Your task to perform on an android device: open a bookmark in the chrome app Image 0: 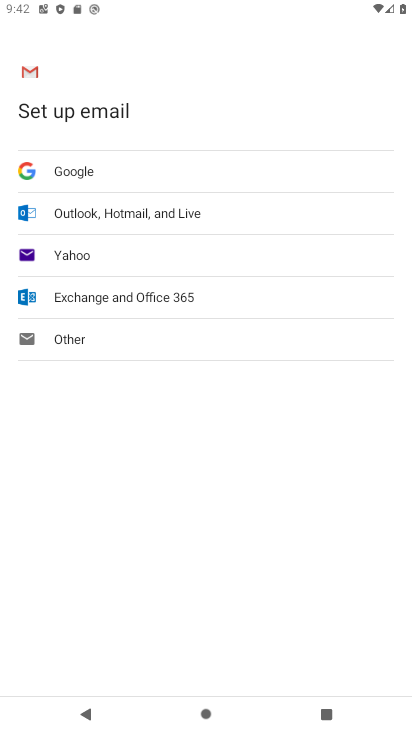
Step 0: press home button
Your task to perform on an android device: open a bookmark in the chrome app Image 1: 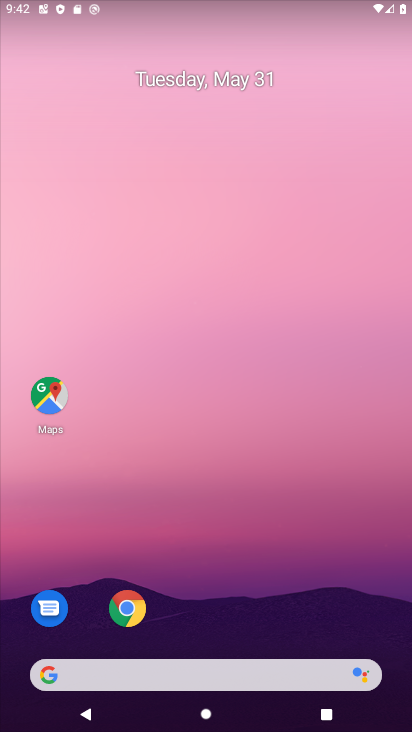
Step 1: click (139, 590)
Your task to perform on an android device: open a bookmark in the chrome app Image 2: 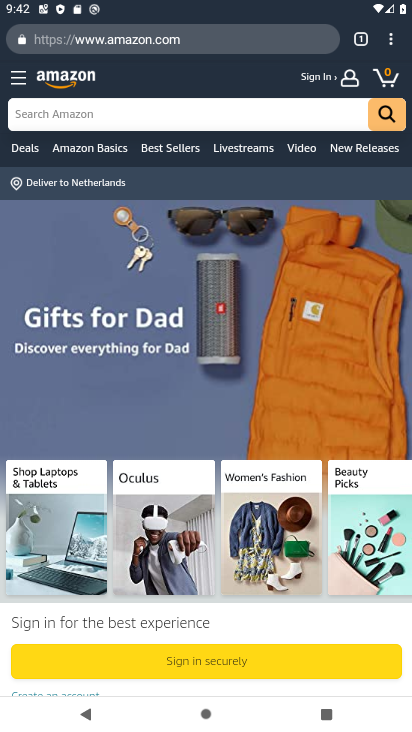
Step 2: click (391, 42)
Your task to perform on an android device: open a bookmark in the chrome app Image 3: 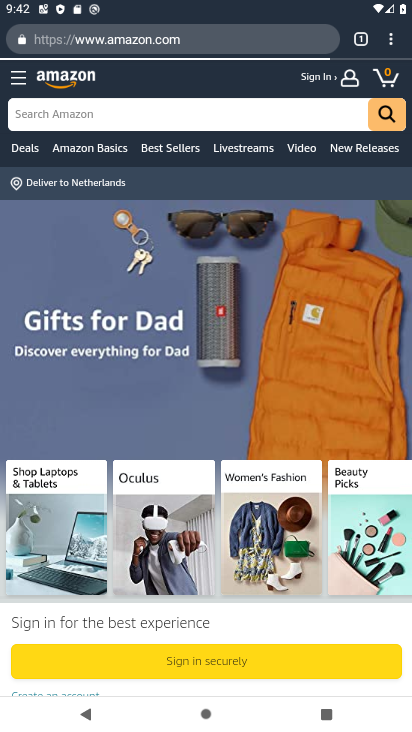
Step 3: task complete